Your task to perform on an android device: Open the calendar app, open the side menu, and click the "Day" option Image 0: 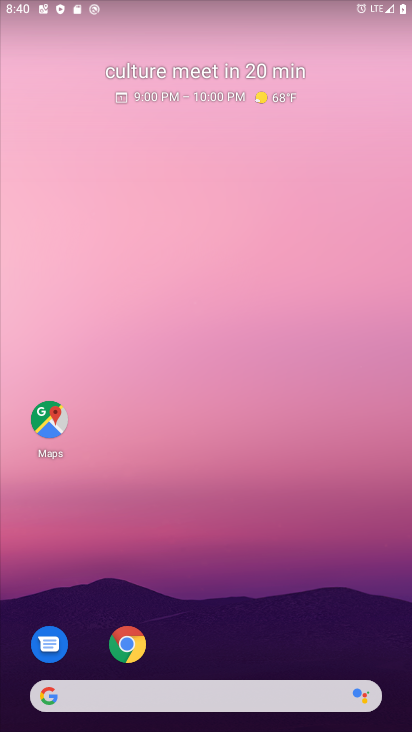
Step 0: drag from (277, 719) to (224, 208)
Your task to perform on an android device: Open the calendar app, open the side menu, and click the "Day" option Image 1: 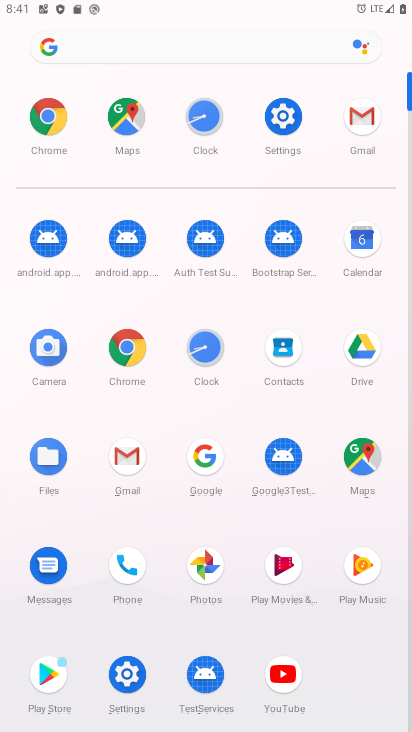
Step 1: click (354, 250)
Your task to perform on an android device: Open the calendar app, open the side menu, and click the "Day" option Image 2: 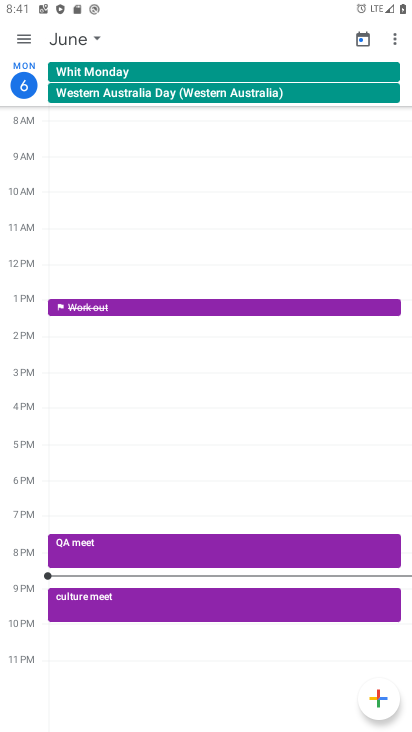
Step 2: click (24, 30)
Your task to perform on an android device: Open the calendar app, open the side menu, and click the "Day" option Image 3: 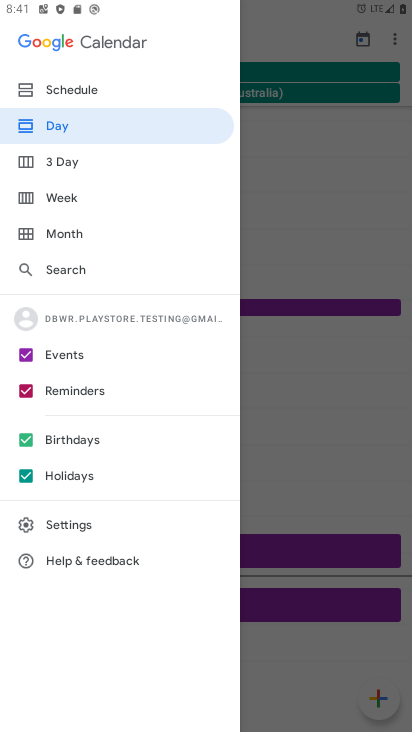
Step 3: click (77, 132)
Your task to perform on an android device: Open the calendar app, open the side menu, and click the "Day" option Image 4: 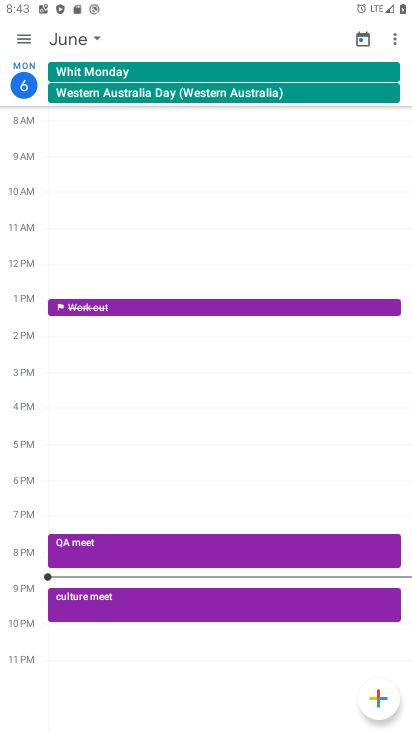
Step 4: task complete